Your task to perform on an android device: Check the weather Image 0: 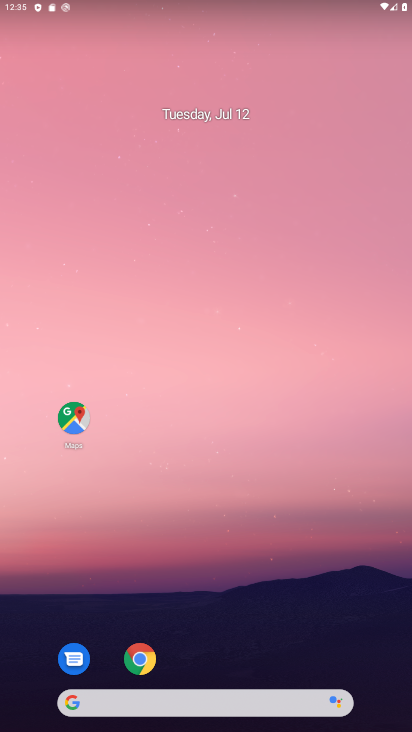
Step 0: drag from (299, 583) to (202, 75)
Your task to perform on an android device: Check the weather Image 1: 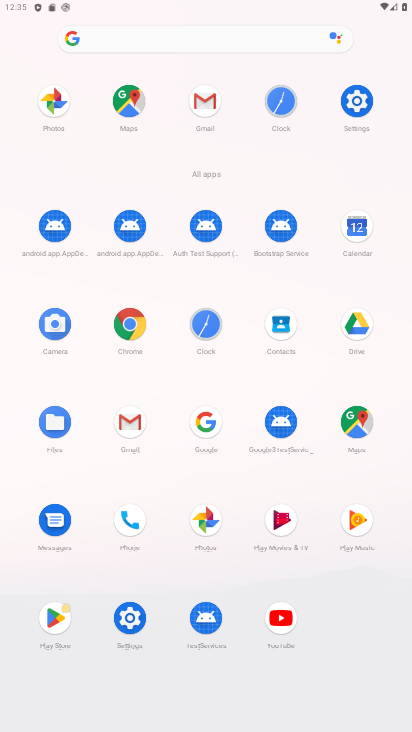
Step 1: click (136, 324)
Your task to perform on an android device: Check the weather Image 2: 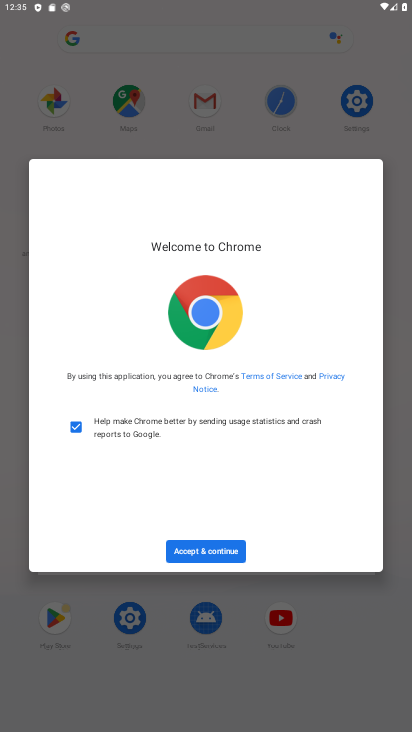
Step 2: click (219, 553)
Your task to perform on an android device: Check the weather Image 3: 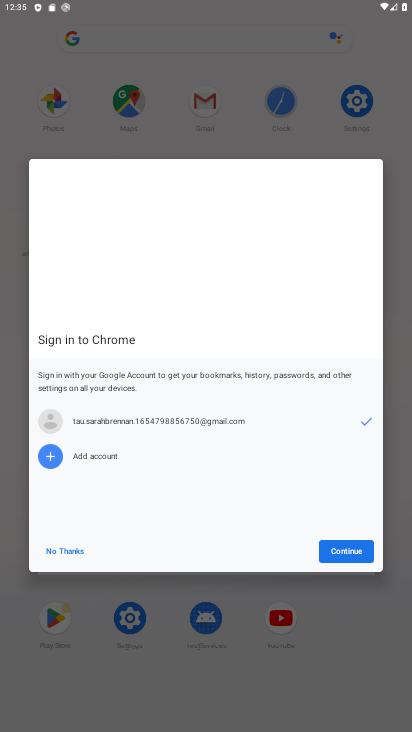
Step 3: click (322, 545)
Your task to perform on an android device: Check the weather Image 4: 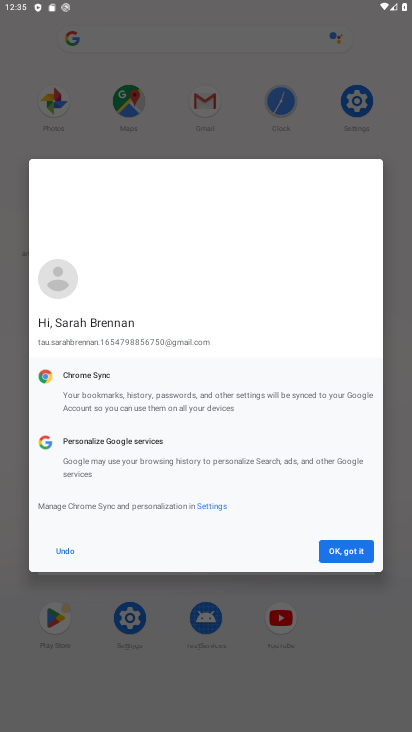
Step 4: click (322, 545)
Your task to perform on an android device: Check the weather Image 5: 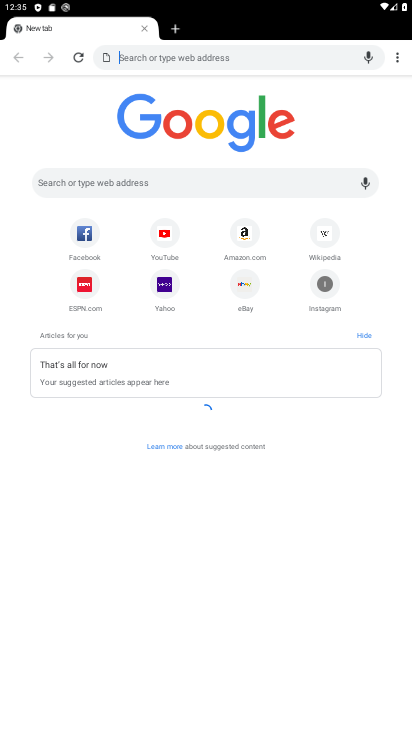
Step 5: click (218, 55)
Your task to perform on an android device: Check the weather Image 6: 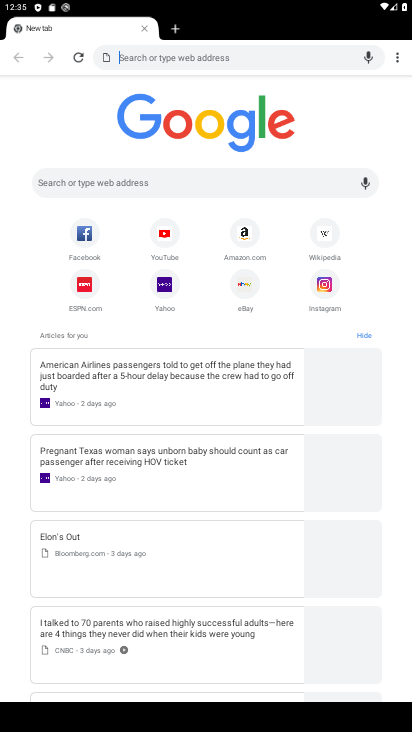
Step 6: type "weather"
Your task to perform on an android device: Check the weather Image 7: 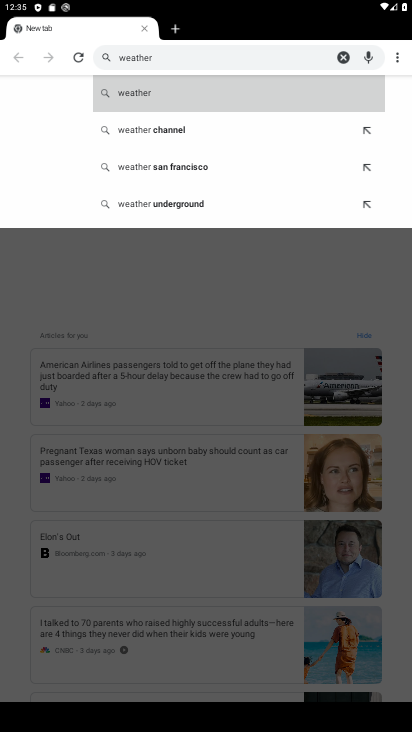
Step 7: click (134, 95)
Your task to perform on an android device: Check the weather Image 8: 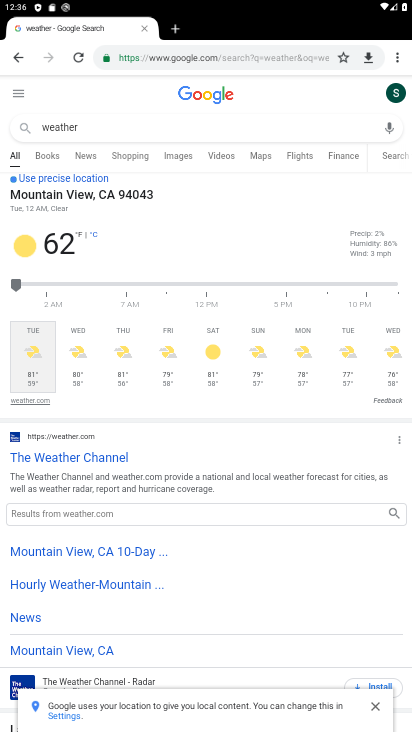
Step 8: task complete